Your task to perform on an android device: Search for logitech g933 on ebay.com, select the first entry, add it to the cart, then select checkout. Image 0: 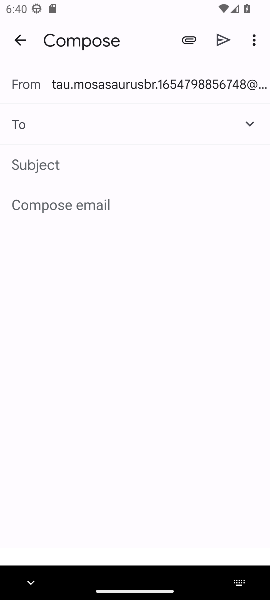
Step 0: press home button
Your task to perform on an android device: Search for logitech g933 on ebay.com, select the first entry, add it to the cart, then select checkout. Image 1: 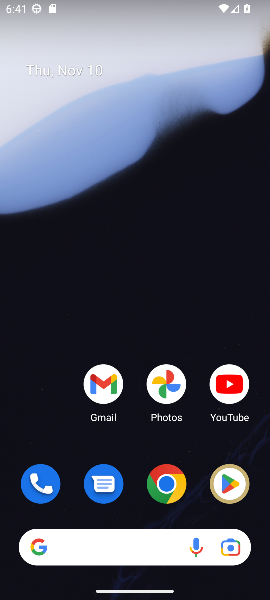
Step 1: click (162, 490)
Your task to perform on an android device: Search for logitech g933 on ebay.com, select the first entry, add it to the cart, then select checkout. Image 2: 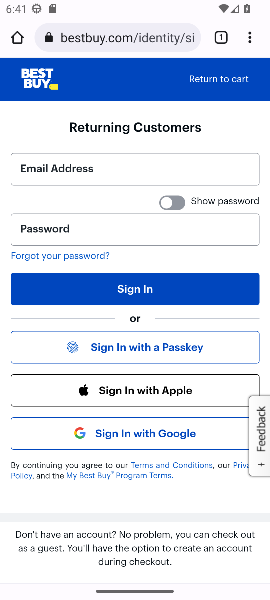
Step 2: click (156, 36)
Your task to perform on an android device: Search for logitech g933 on ebay.com, select the first entry, add it to the cart, then select checkout. Image 3: 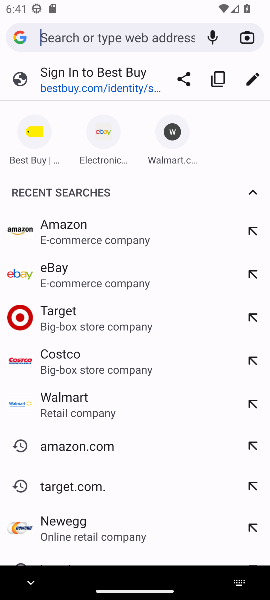
Step 3: click (98, 143)
Your task to perform on an android device: Search for logitech g933 on ebay.com, select the first entry, add it to the cart, then select checkout. Image 4: 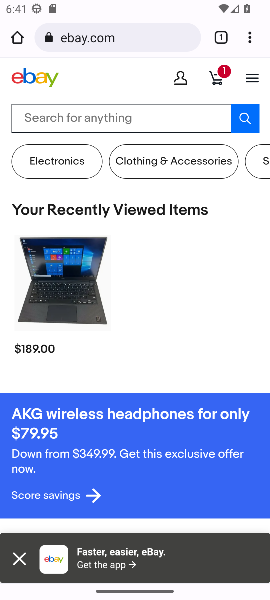
Step 4: click (78, 115)
Your task to perform on an android device: Search for logitech g933 on ebay.com, select the first entry, add it to the cart, then select checkout. Image 5: 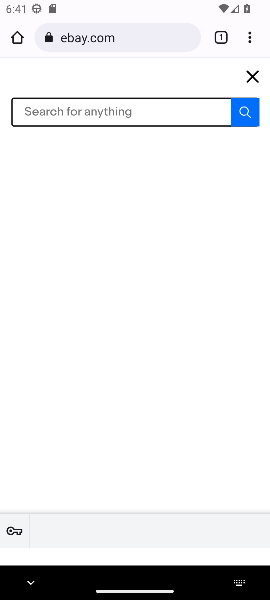
Step 5: type "logitech g933"
Your task to perform on an android device: Search for logitech g933 on ebay.com, select the first entry, add it to the cart, then select checkout. Image 6: 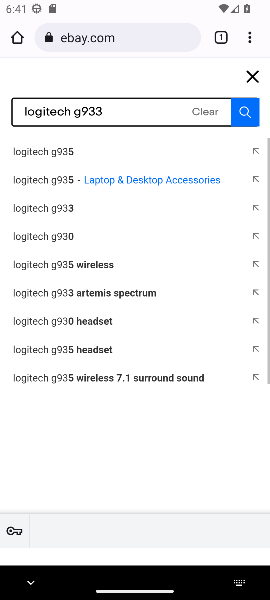
Step 6: click (53, 216)
Your task to perform on an android device: Search for logitech g933 on ebay.com, select the first entry, add it to the cart, then select checkout. Image 7: 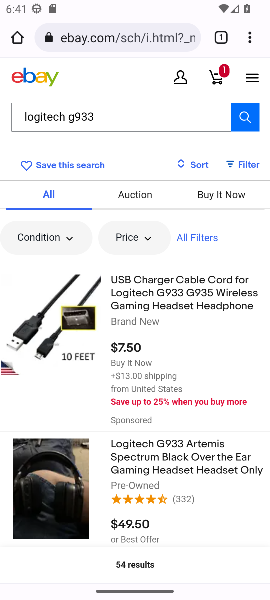
Step 7: click (89, 330)
Your task to perform on an android device: Search for logitech g933 on ebay.com, select the first entry, add it to the cart, then select checkout. Image 8: 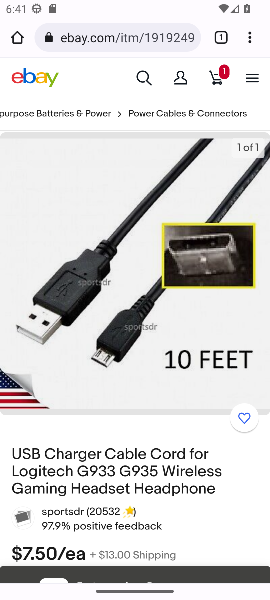
Step 8: drag from (136, 415) to (136, 233)
Your task to perform on an android device: Search for logitech g933 on ebay.com, select the first entry, add it to the cart, then select checkout. Image 9: 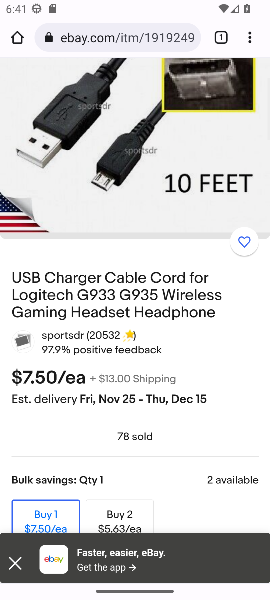
Step 9: drag from (131, 373) to (127, 186)
Your task to perform on an android device: Search for logitech g933 on ebay.com, select the first entry, add it to the cart, then select checkout. Image 10: 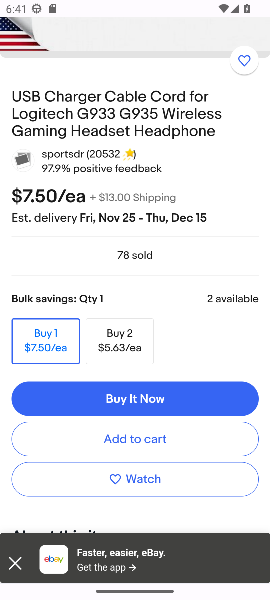
Step 10: click (128, 437)
Your task to perform on an android device: Search for logitech g933 on ebay.com, select the first entry, add it to the cart, then select checkout. Image 11: 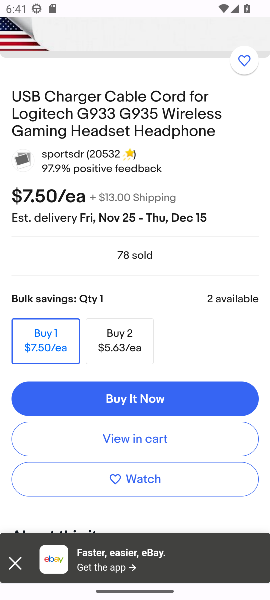
Step 11: click (128, 437)
Your task to perform on an android device: Search for logitech g933 on ebay.com, select the first entry, add it to the cart, then select checkout. Image 12: 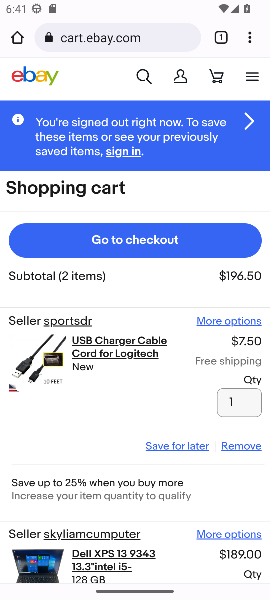
Step 12: click (138, 243)
Your task to perform on an android device: Search for logitech g933 on ebay.com, select the first entry, add it to the cart, then select checkout. Image 13: 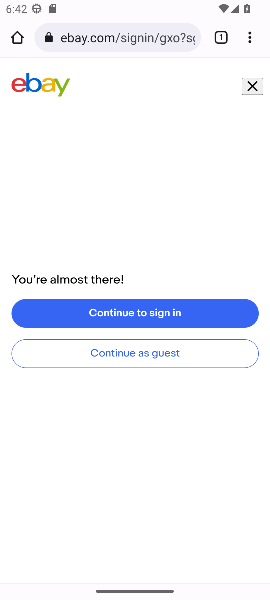
Step 13: task complete